Your task to perform on an android device: turn vacation reply on in the gmail app Image 0: 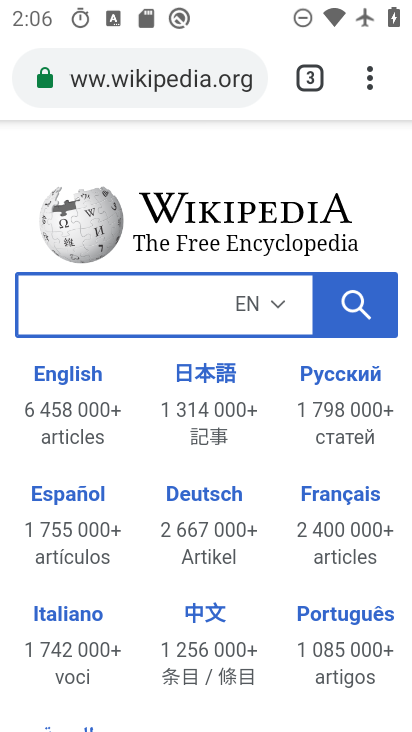
Step 0: press home button
Your task to perform on an android device: turn vacation reply on in the gmail app Image 1: 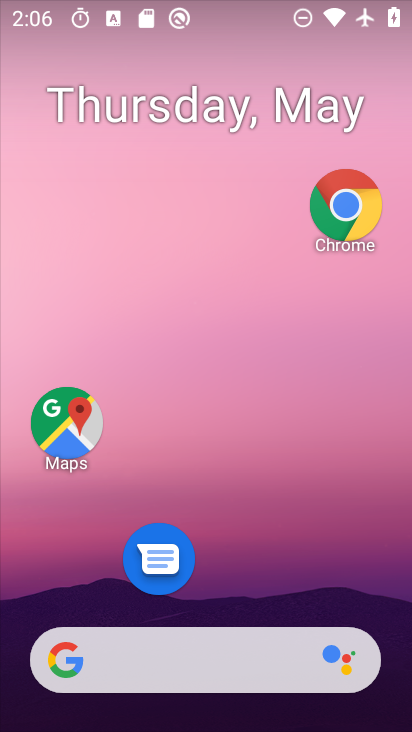
Step 1: drag from (247, 626) to (283, 128)
Your task to perform on an android device: turn vacation reply on in the gmail app Image 2: 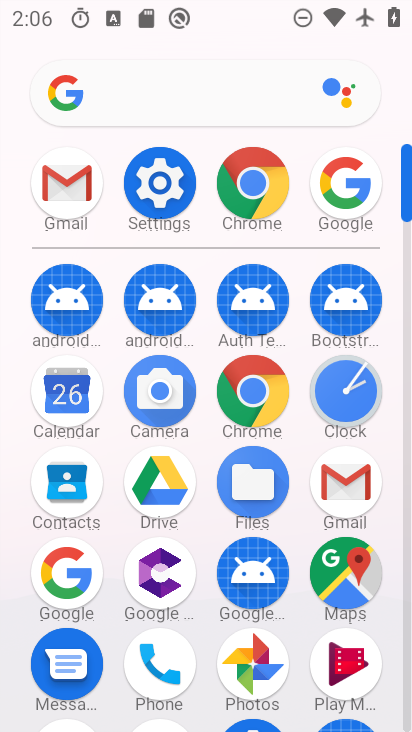
Step 2: click (351, 495)
Your task to perform on an android device: turn vacation reply on in the gmail app Image 3: 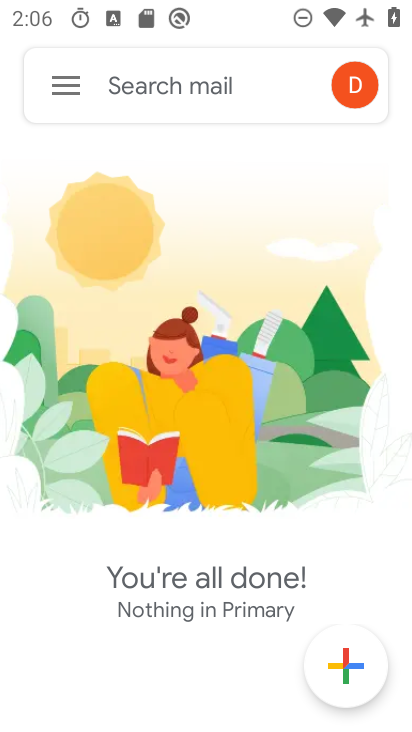
Step 3: click (70, 89)
Your task to perform on an android device: turn vacation reply on in the gmail app Image 4: 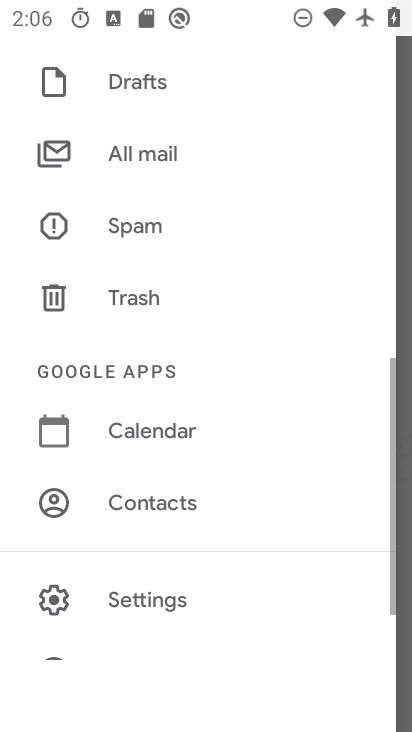
Step 4: drag from (173, 568) to (228, 248)
Your task to perform on an android device: turn vacation reply on in the gmail app Image 5: 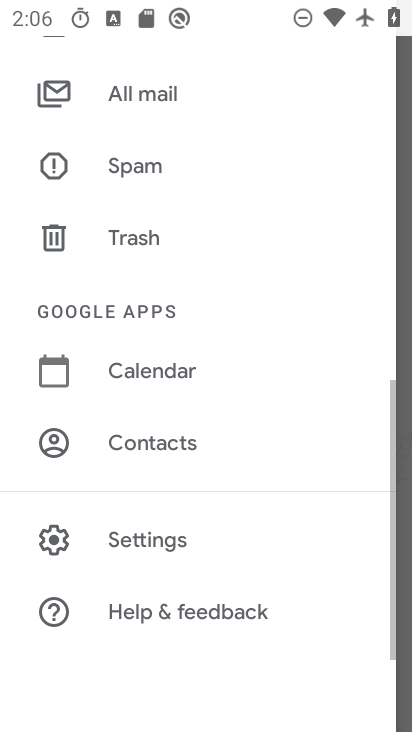
Step 5: click (167, 545)
Your task to perform on an android device: turn vacation reply on in the gmail app Image 6: 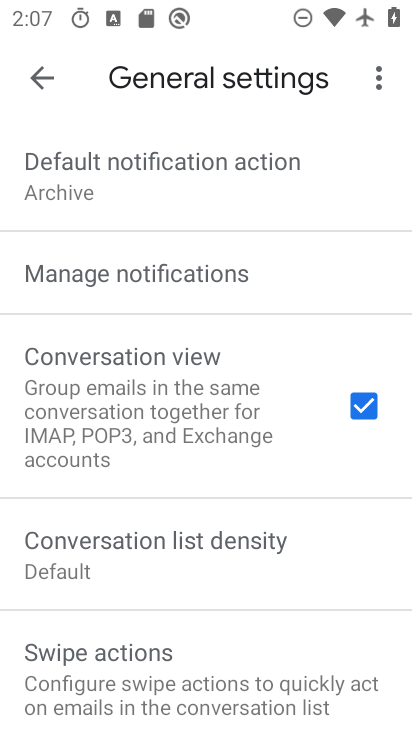
Step 6: click (48, 74)
Your task to perform on an android device: turn vacation reply on in the gmail app Image 7: 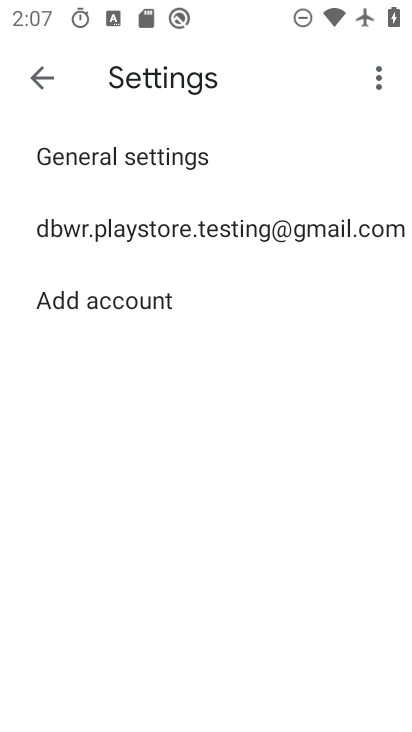
Step 7: click (192, 234)
Your task to perform on an android device: turn vacation reply on in the gmail app Image 8: 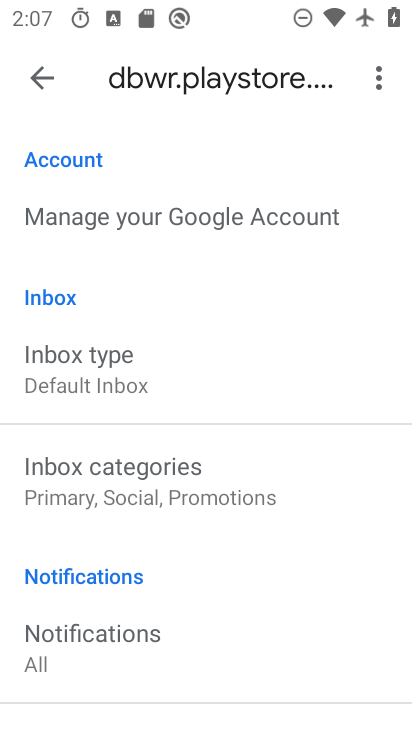
Step 8: drag from (166, 530) to (202, 65)
Your task to perform on an android device: turn vacation reply on in the gmail app Image 9: 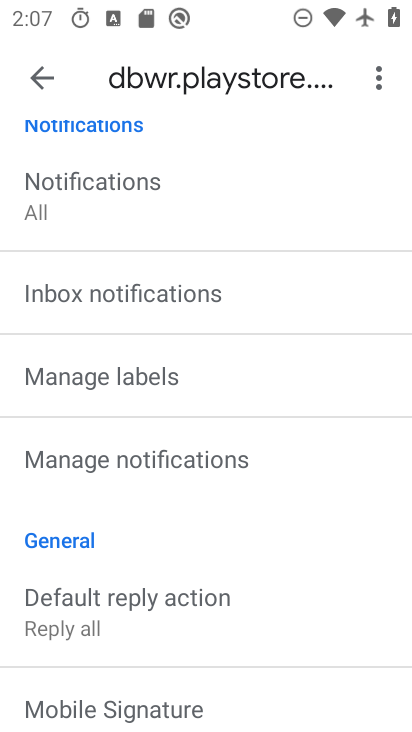
Step 9: drag from (221, 557) to (224, 37)
Your task to perform on an android device: turn vacation reply on in the gmail app Image 10: 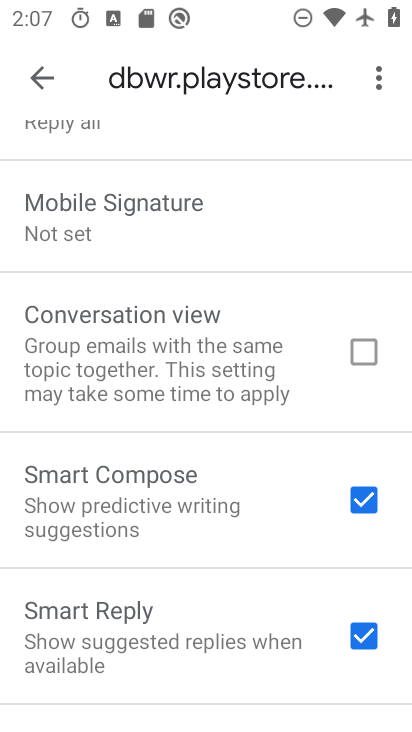
Step 10: drag from (155, 492) to (212, 150)
Your task to perform on an android device: turn vacation reply on in the gmail app Image 11: 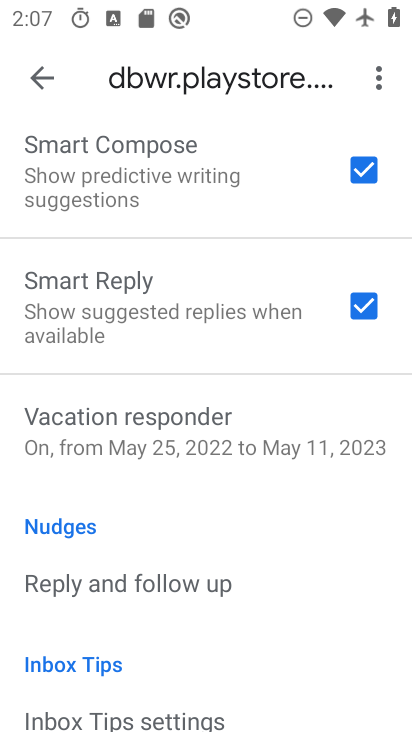
Step 11: drag from (187, 665) to (180, 416)
Your task to perform on an android device: turn vacation reply on in the gmail app Image 12: 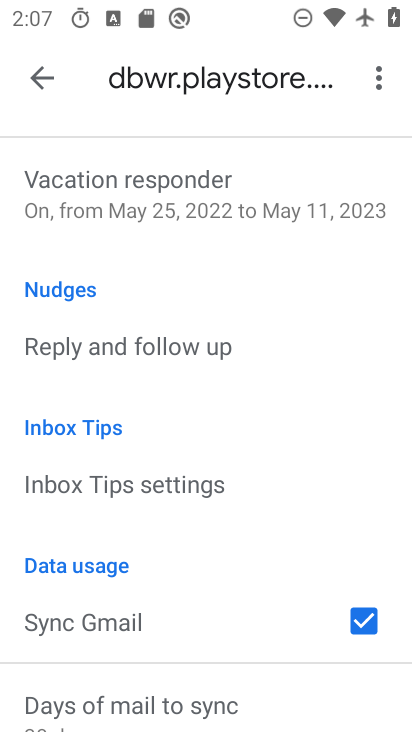
Step 12: drag from (250, 642) to (275, 301)
Your task to perform on an android device: turn vacation reply on in the gmail app Image 13: 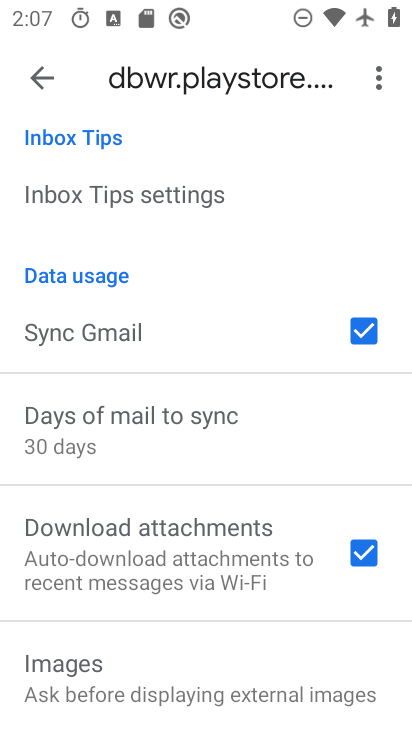
Step 13: drag from (228, 355) to (219, 730)
Your task to perform on an android device: turn vacation reply on in the gmail app Image 14: 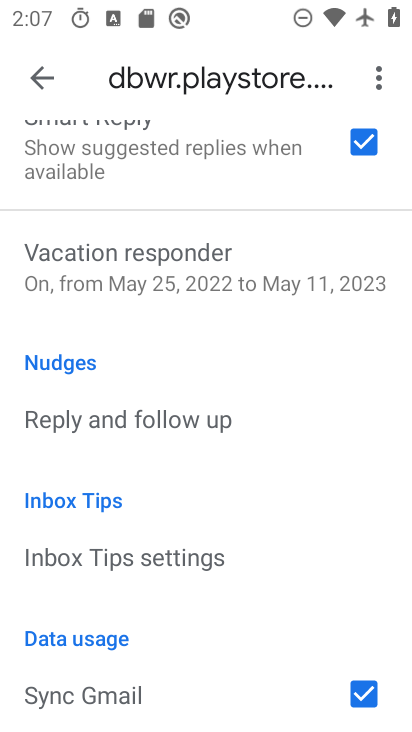
Step 14: drag from (229, 388) to (232, 520)
Your task to perform on an android device: turn vacation reply on in the gmail app Image 15: 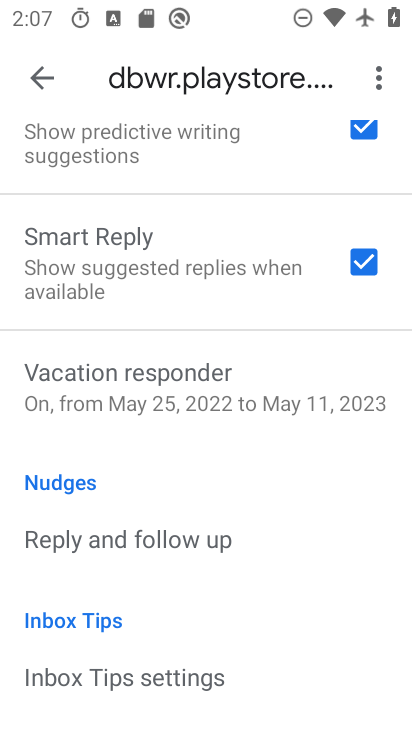
Step 15: click (243, 389)
Your task to perform on an android device: turn vacation reply on in the gmail app Image 16: 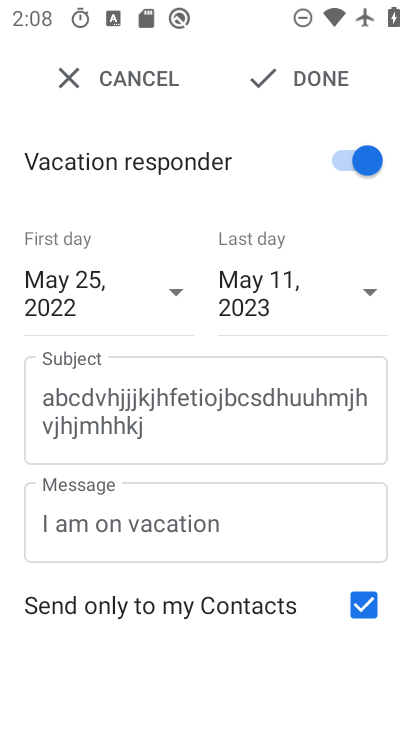
Step 16: task complete